Your task to perform on an android device: Go to calendar. Show me events next week Image 0: 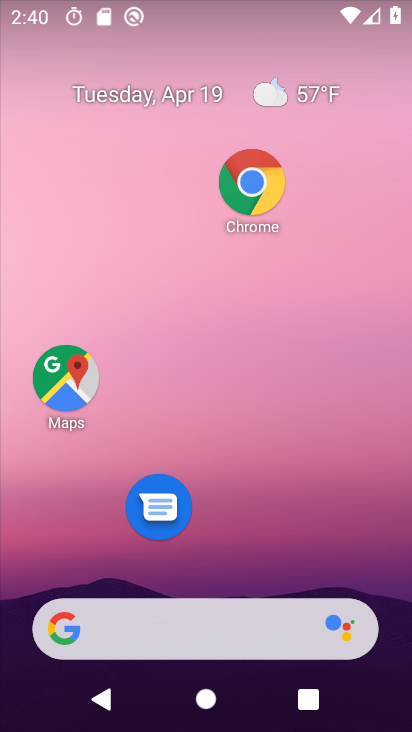
Step 0: drag from (304, 642) to (321, 191)
Your task to perform on an android device: Go to calendar. Show me events next week Image 1: 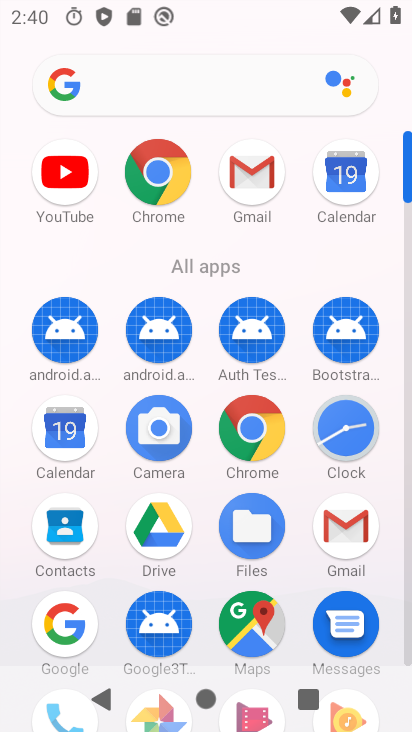
Step 1: click (82, 449)
Your task to perform on an android device: Go to calendar. Show me events next week Image 2: 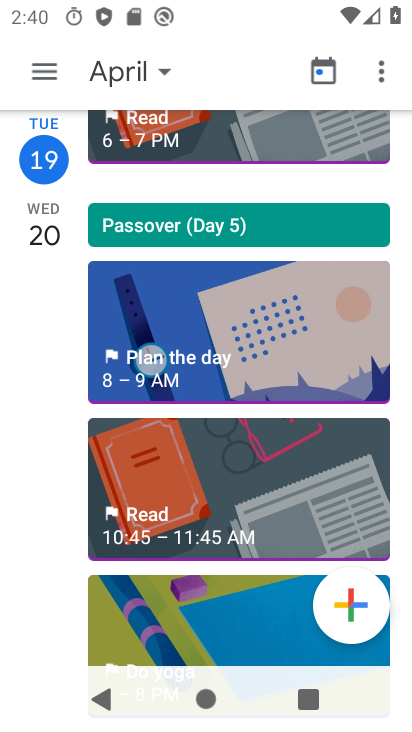
Step 2: click (152, 68)
Your task to perform on an android device: Go to calendar. Show me events next week Image 3: 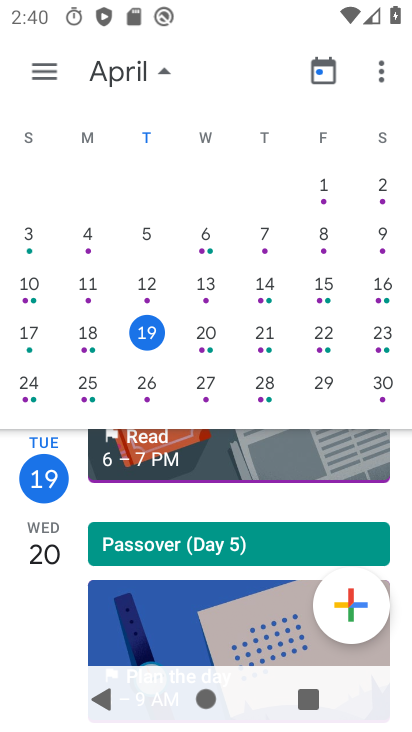
Step 3: click (42, 399)
Your task to perform on an android device: Go to calendar. Show me events next week Image 4: 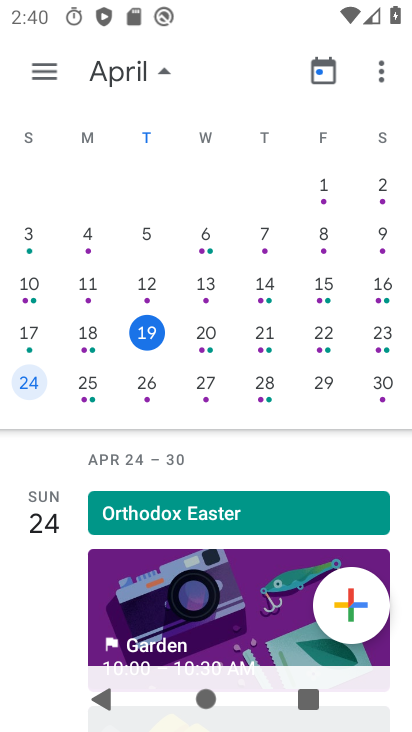
Step 4: task complete